Your task to perform on an android device: Open privacy settings Image 0: 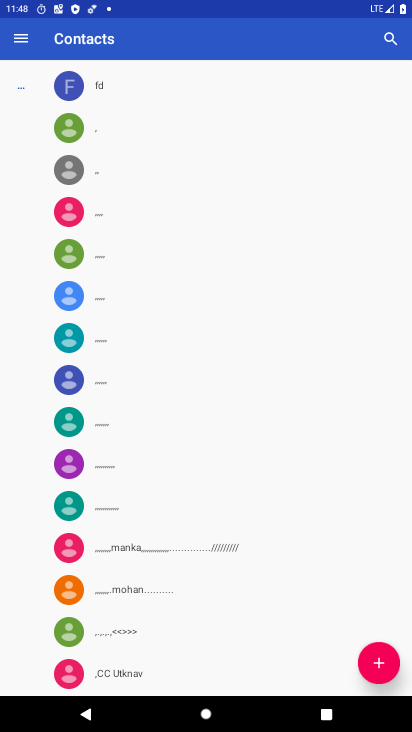
Step 0: press home button
Your task to perform on an android device: Open privacy settings Image 1: 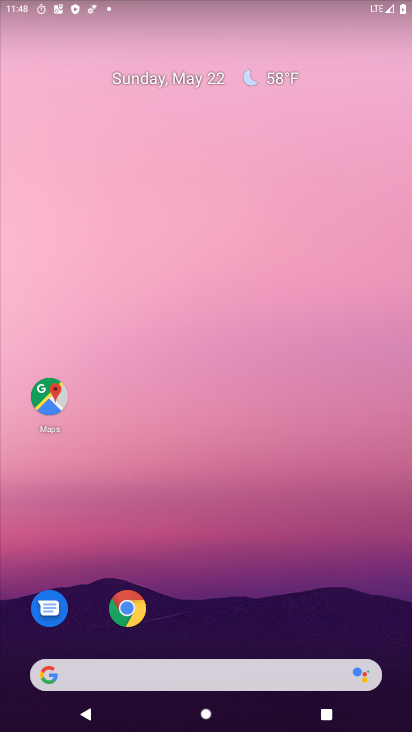
Step 1: drag from (288, 616) to (240, 125)
Your task to perform on an android device: Open privacy settings Image 2: 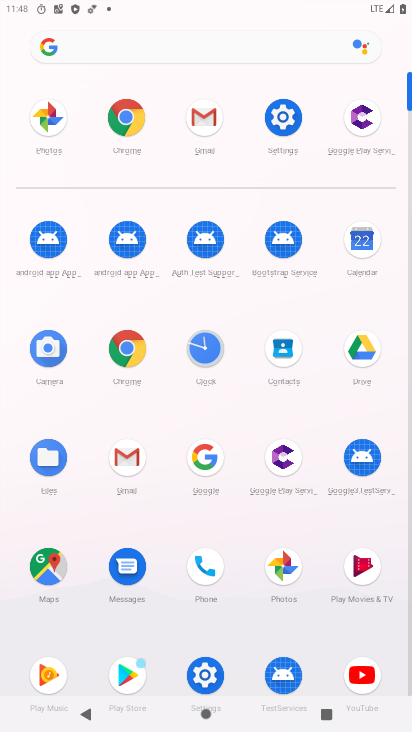
Step 2: click (275, 115)
Your task to perform on an android device: Open privacy settings Image 3: 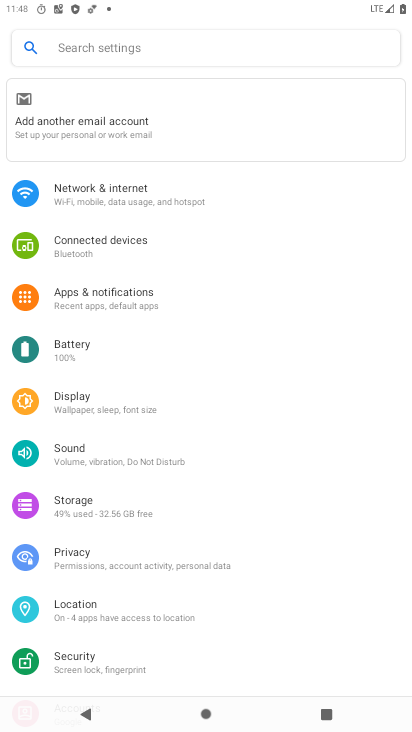
Step 3: click (224, 561)
Your task to perform on an android device: Open privacy settings Image 4: 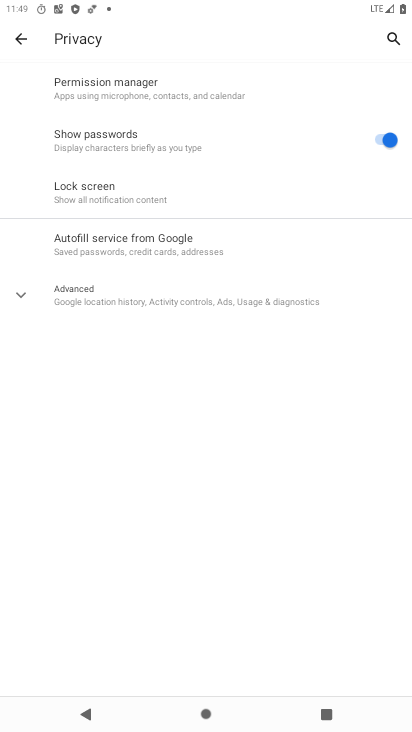
Step 4: task complete